Your task to perform on an android device: turn on wifi Image 0: 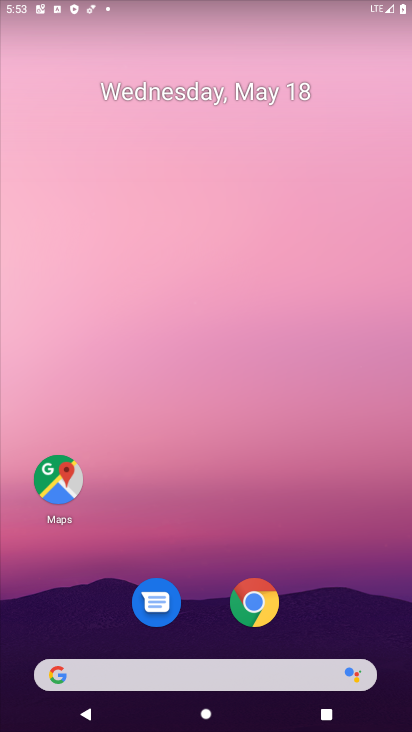
Step 0: drag from (206, 723) to (219, 87)
Your task to perform on an android device: turn on wifi Image 1: 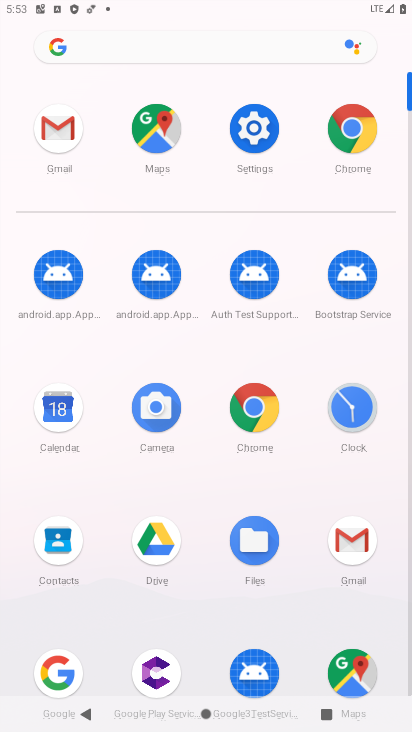
Step 1: click (263, 129)
Your task to perform on an android device: turn on wifi Image 2: 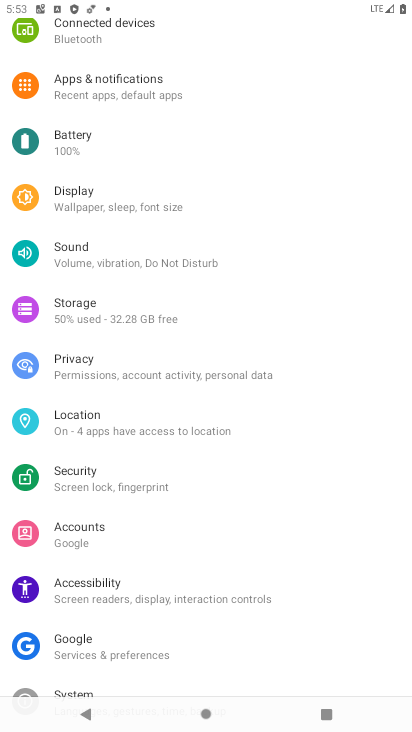
Step 2: drag from (161, 182) to (183, 707)
Your task to perform on an android device: turn on wifi Image 3: 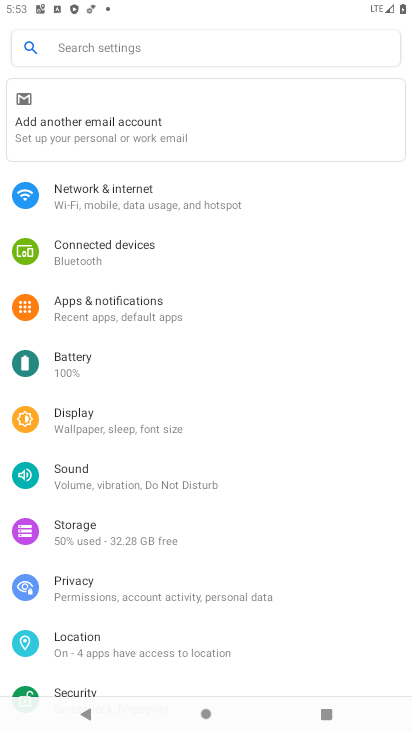
Step 3: click (89, 202)
Your task to perform on an android device: turn on wifi Image 4: 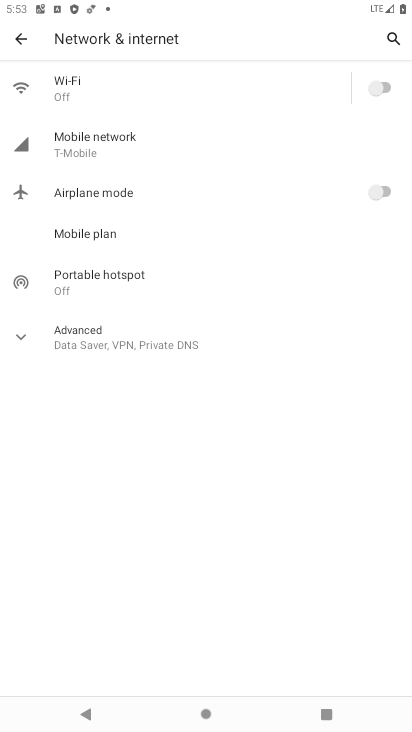
Step 4: click (387, 87)
Your task to perform on an android device: turn on wifi Image 5: 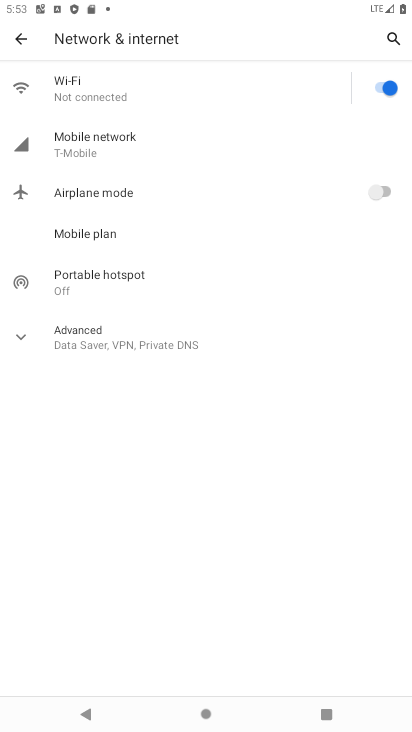
Step 5: task complete